Your task to perform on an android device: Go to location settings Image 0: 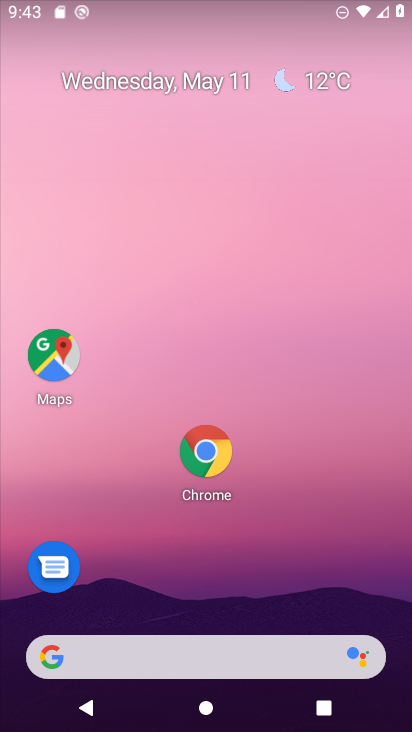
Step 0: drag from (160, 653) to (271, 254)
Your task to perform on an android device: Go to location settings Image 1: 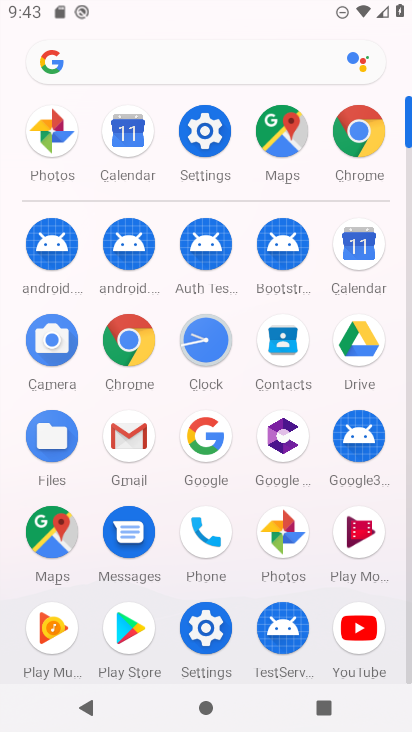
Step 1: click (195, 138)
Your task to perform on an android device: Go to location settings Image 2: 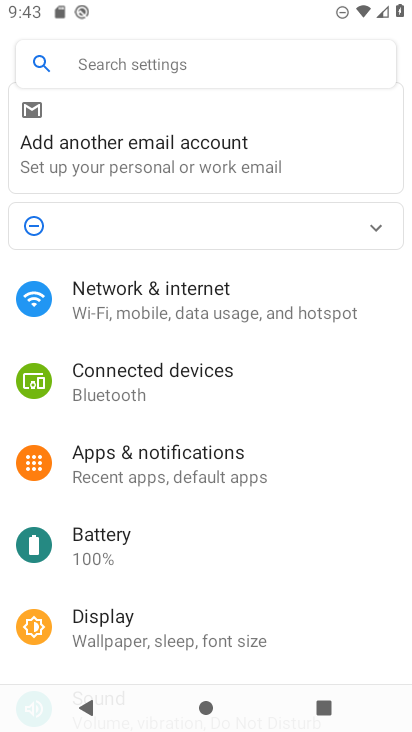
Step 2: drag from (158, 622) to (297, 347)
Your task to perform on an android device: Go to location settings Image 3: 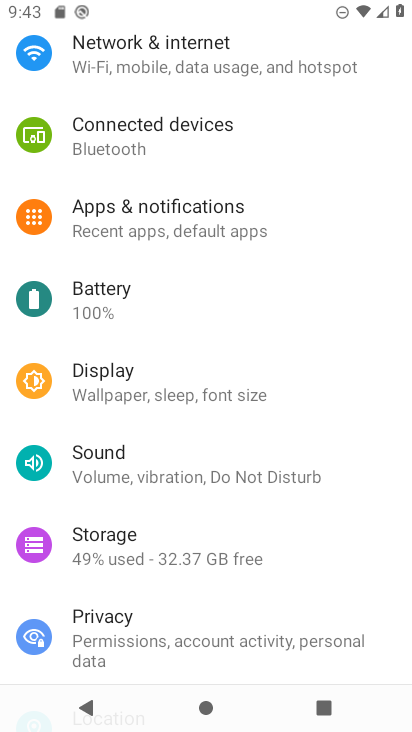
Step 3: drag from (168, 606) to (296, 278)
Your task to perform on an android device: Go to location settings Image 4: 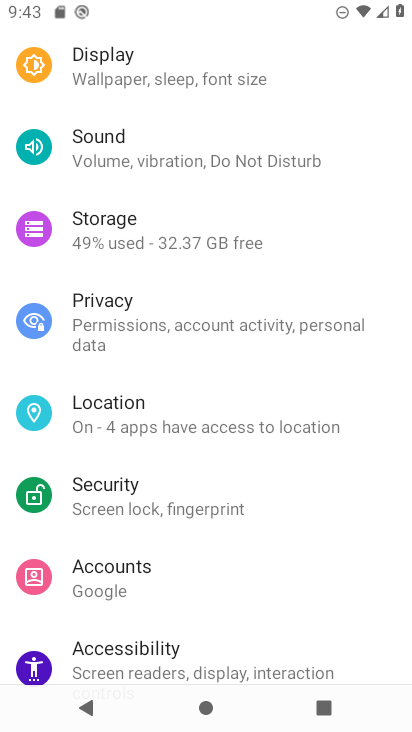
Step 4: click (163, 416)
Your task to perform on an android device: Go to location settings Image 5: 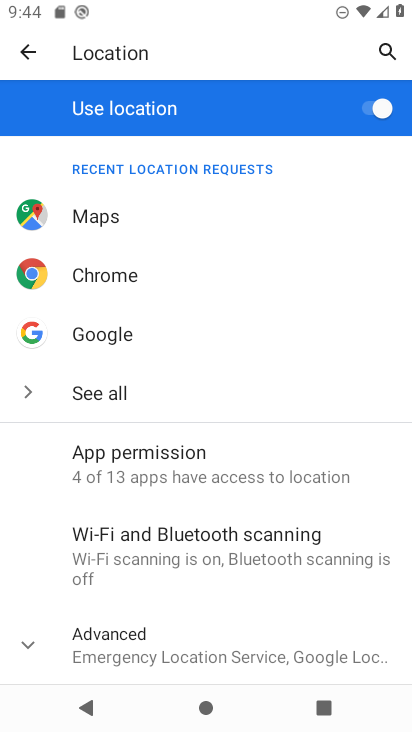
Step 5: task complete